Your task to perform on an android device: Toggle the flashlight Image 0: 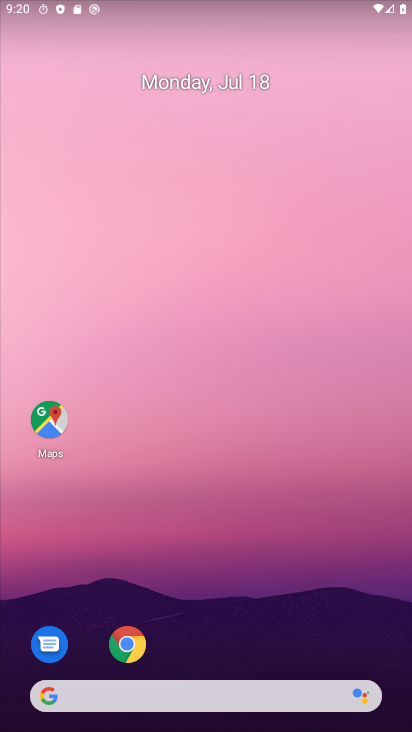
Step 0: press home button
Your task to perform on an android device: Toggle the flashlight Image 1: 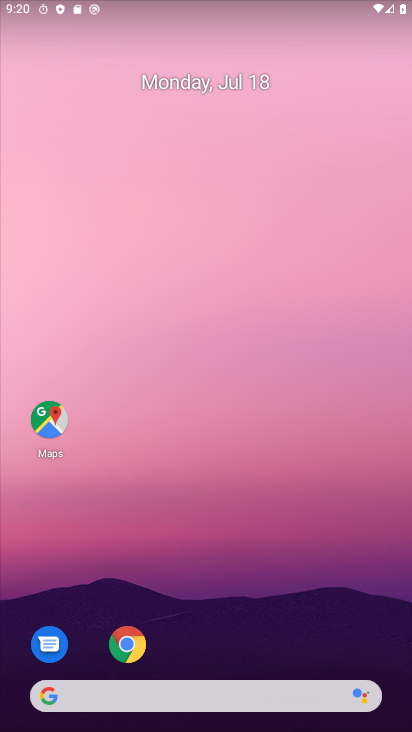
Step 1: drag from (231, 652) to (260, 0)
Your task to perform on an android device: Toggle the flashlight Image 2: 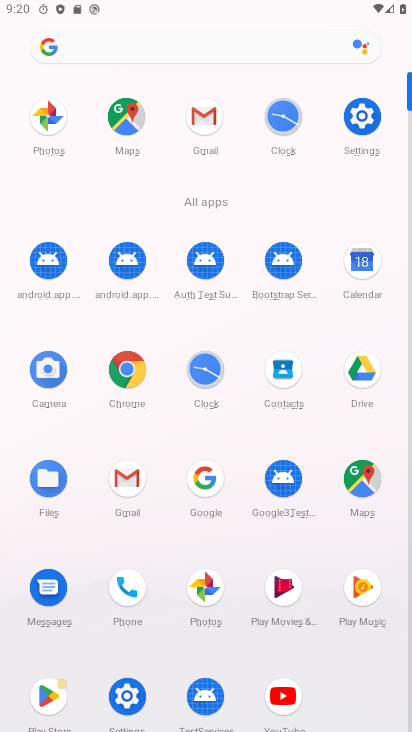
Step 2: click (360, 112)
Your task to perform on an android device: Toggle the flashlight Image 3: 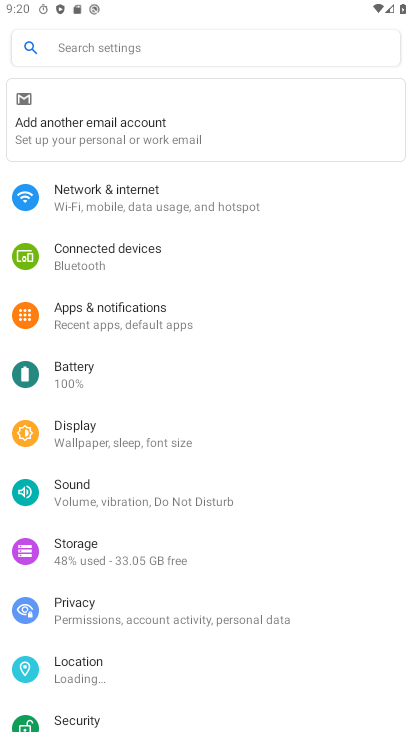
Step 3: click (107, 43)
Your task to perform on an android device: Toggle the flashlight Image 4: 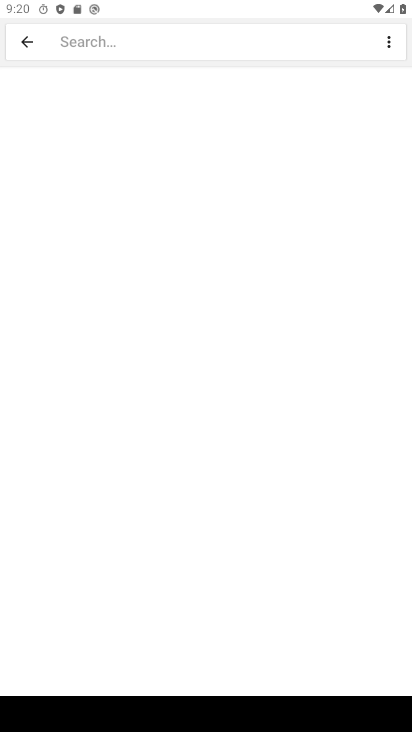
Step 4: type "flashlight"
Your task to perform on an android device: Toggle the flashlight Image 5: 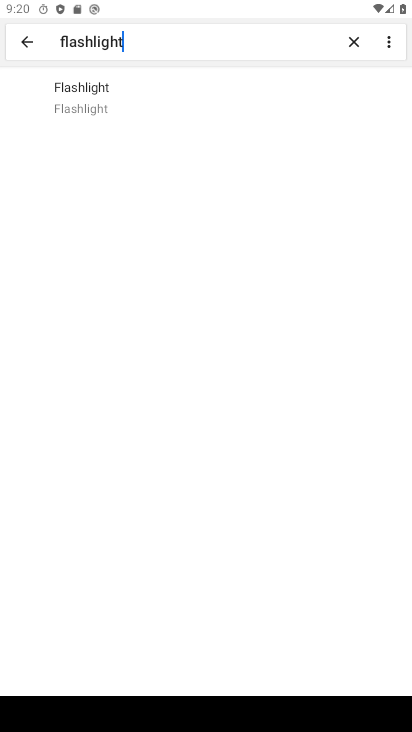
Step 5: click (102, 97)
Your task to perform on an android device: Toggle the flashlight Image 6: 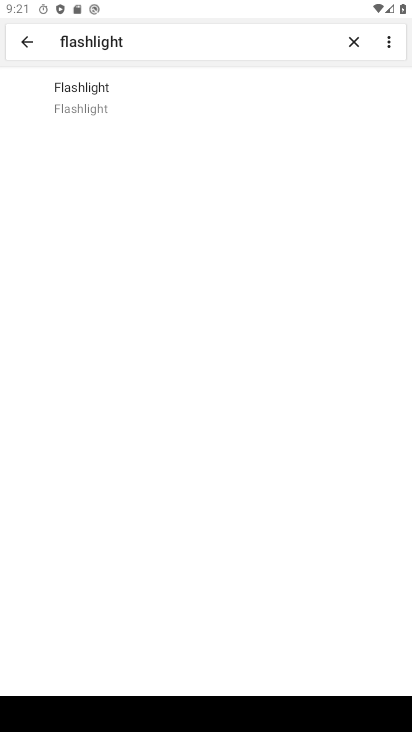
Step 6: click (111, 92)
Your task to perform on an android device: Toggle the flashlight Image 7: 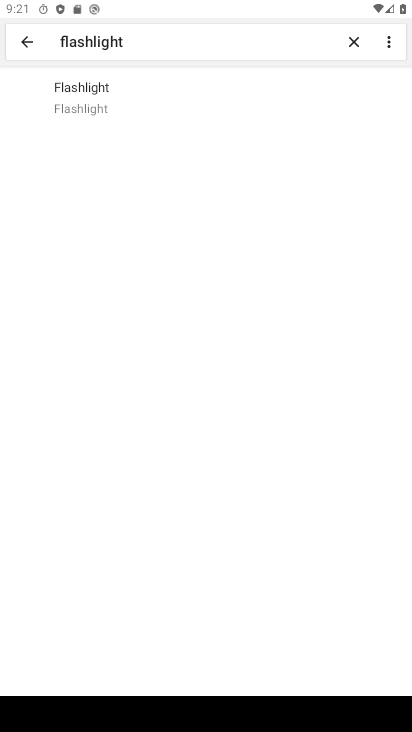
Step 7: task complete